Your task to perform on an android device: toggle airplane mode Image 0: 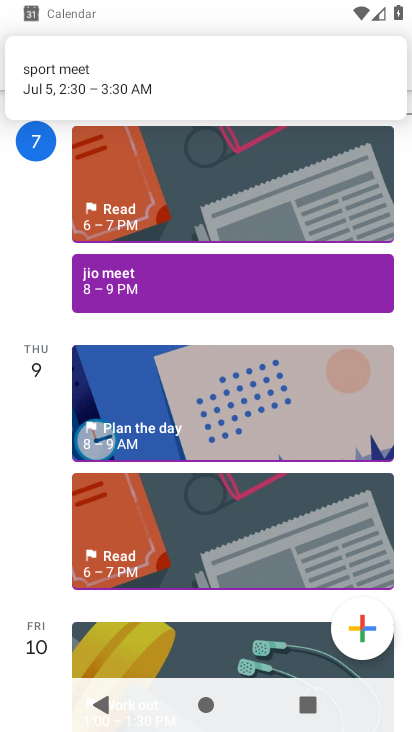
Step 0: press home button
Your task to perform on an android device: toggle airplane mode Image 1: 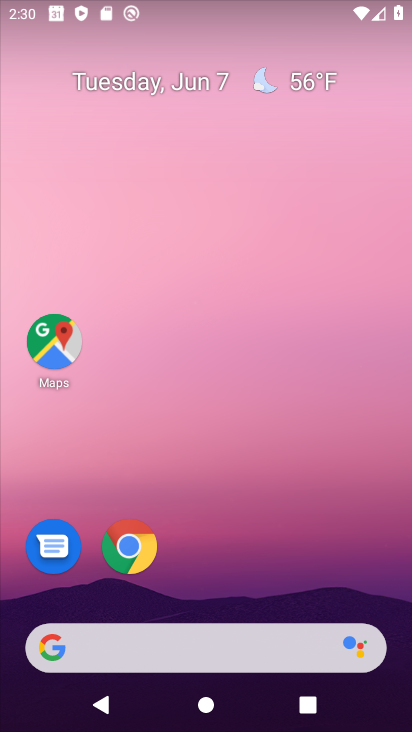
Step 1: drag from (153, 2) to (65, 712)
Your task to perform on an android device: toggle airplane mode Image 2: 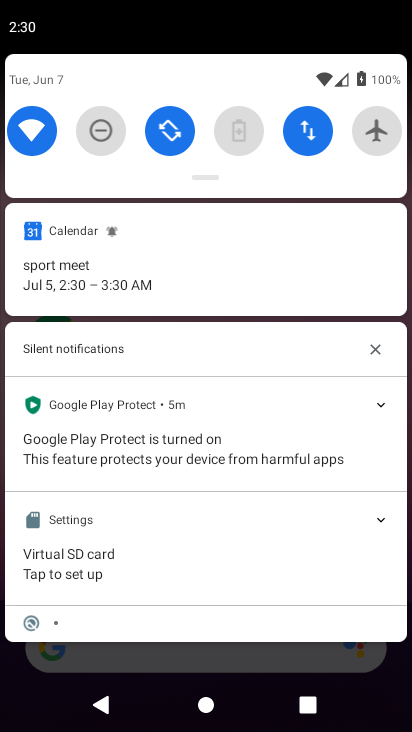
Step 2: click (359, 134)
Your task to perform on an android device: toggle airplane mode Image 3: 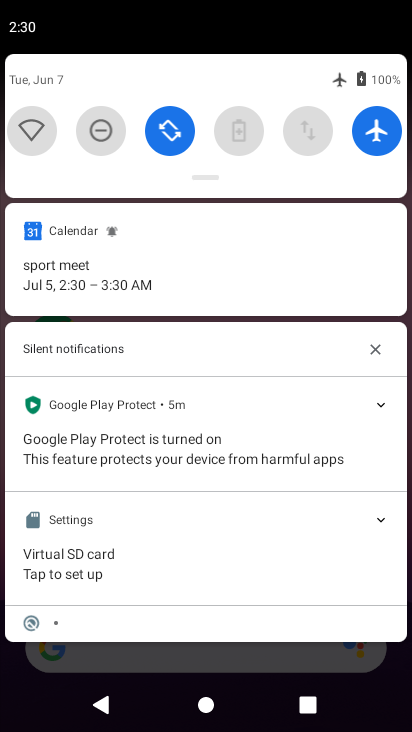
Step 3: task complete